Your task to perform on an android device: turn on showing notifications on the lock screen Image 0: 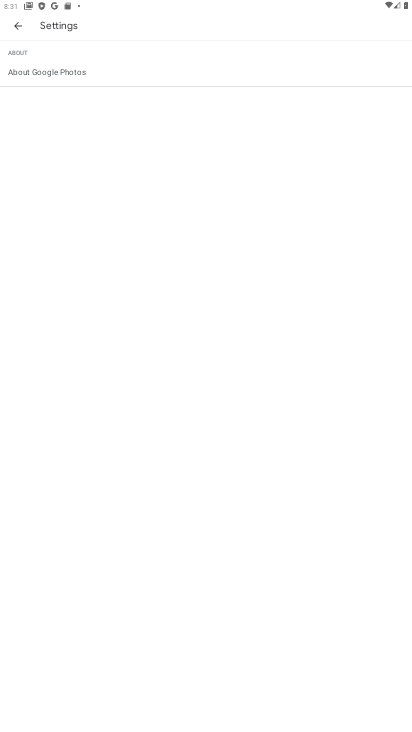
Step 0: press home button
Your task to perform on an android device: turn on showing notifications on the lock screen Image 1: 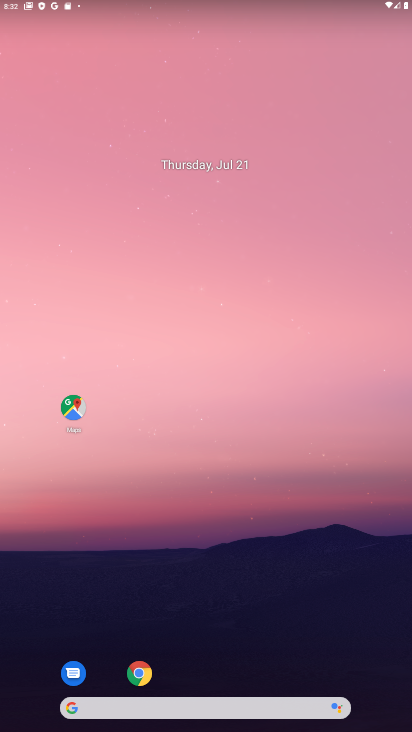
Step 1: drag from (208, 678) to (270, 165)
Your task to perform on an android device: turn on showing notifications on the lock screen Image 2: 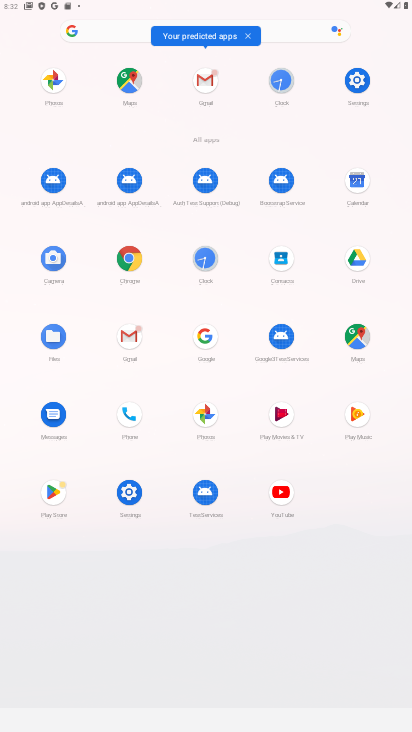
Step 2: click (355, 78)
Your task to perform on an android device: turn on showing notifications on the lock screen Image 3: 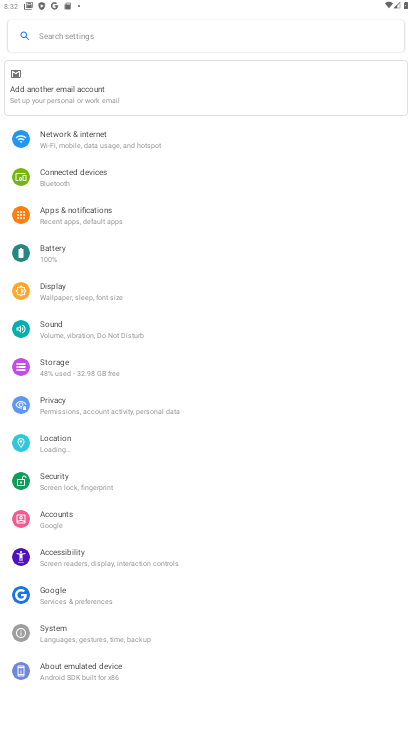
Step 3: click (89, 214)
Your task to perform on an android device: turn on showing notifications on the lock screen Image 4: 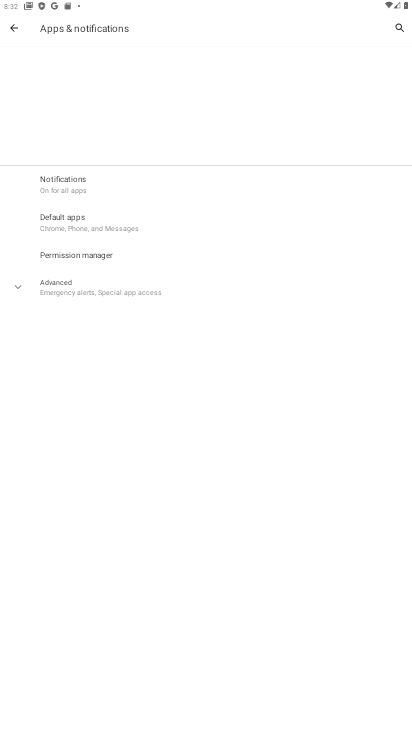
Step 4: click (69, 185)
Your task to perform on an android device: turn on showing notifications on the lock screen Image 5: 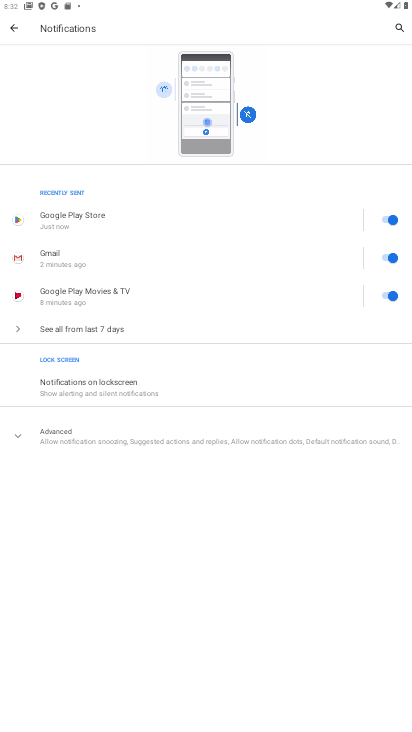
Step 5: click (73, 390)
Your task to perform on an android device: turn on showing notifications on the lock screen Image 6: 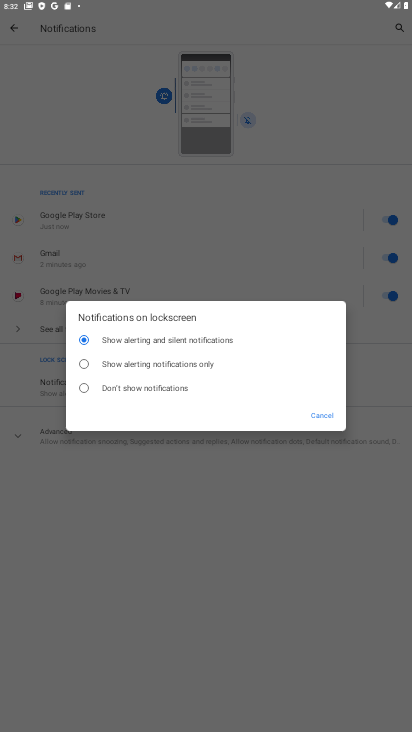
Step 6: task complete